Your task to perform on an android device: open wifi settings Image 0: 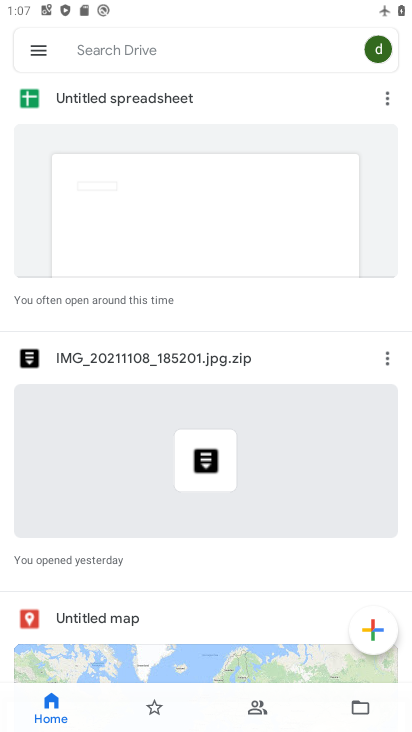
Step 0: press home button
Your task to perform on an android device: open wifi settings Image 1: 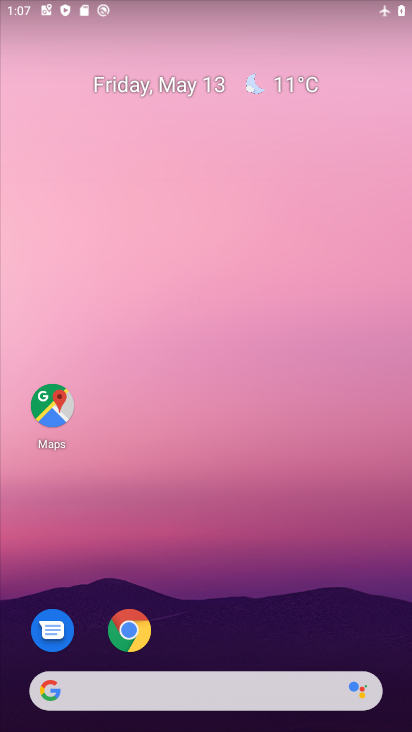
Step 1: drag from (327, 639) to (284, 0)
Your task to perform on an android device: open wifi settings Image 2: 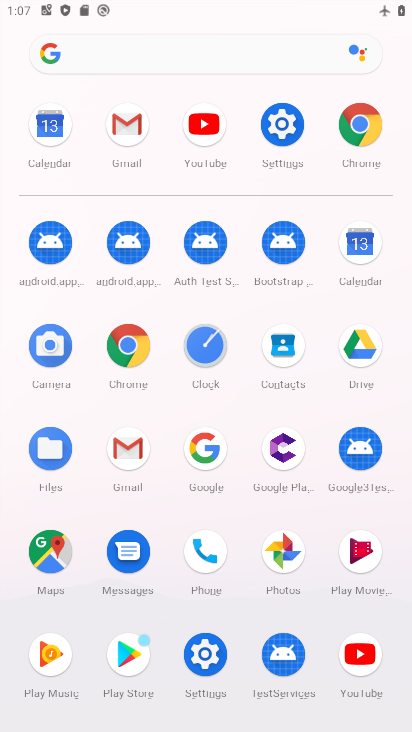
Step 2: click (267, 125)
Your task to perform on an android device: open wifi settings Image 3: 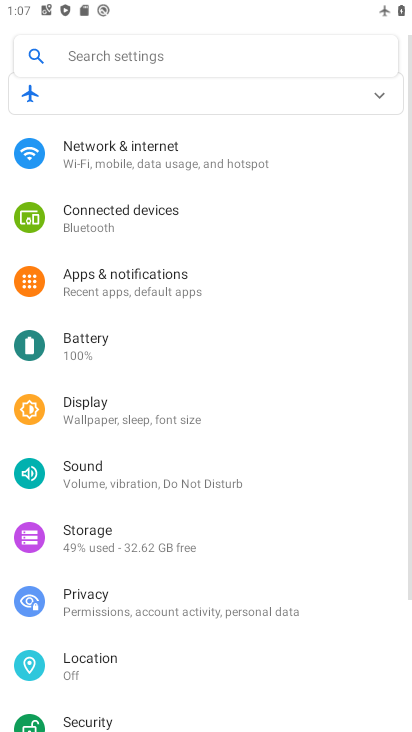
Step 3: click (107, 161)
Your task to perform on an android device: open wifi settings Image 4: 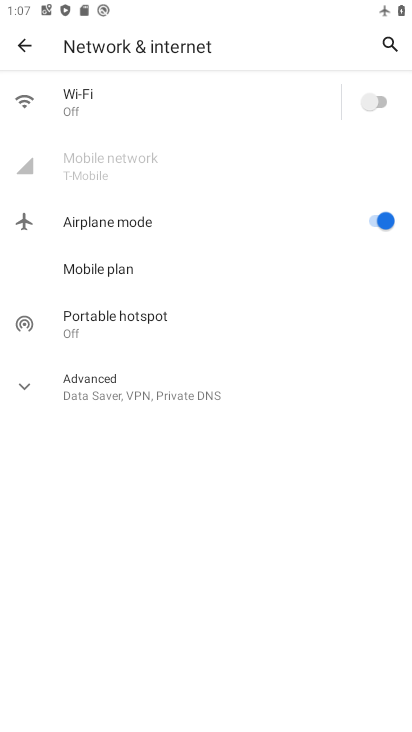
Step 4: click (71, 101)
Your task to perform on an android device: open wifi settings Image 5: 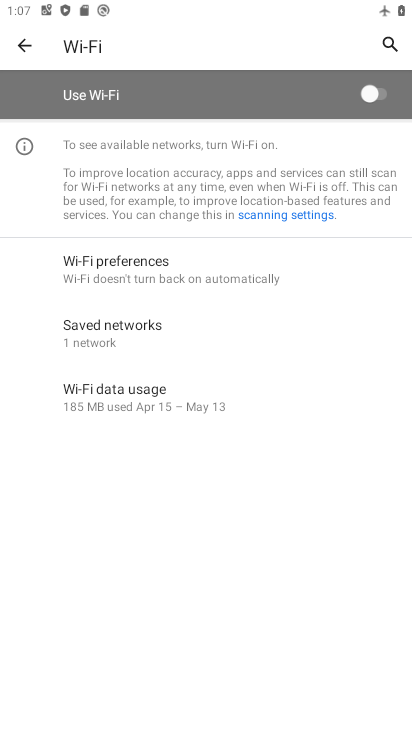
Step 5: task complete